Your task to perform on an android device: Open the phone app and click the voicemail tab. Image 0: 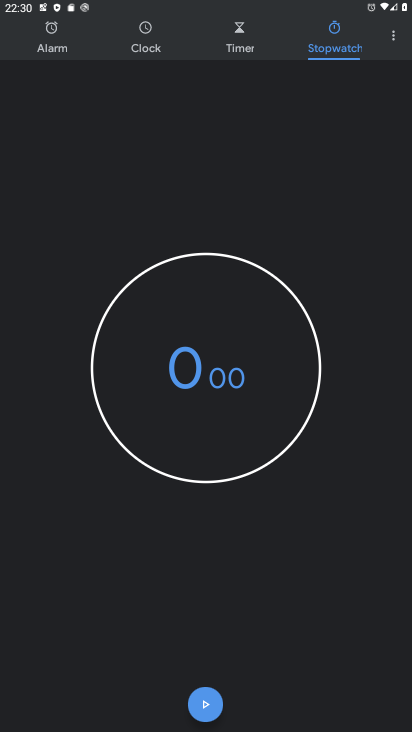
Step 0: drag from (289, 275) to (330, 142)
Your task to perform on an android device: Open the phone app and click the voicemail tab. Image 1: 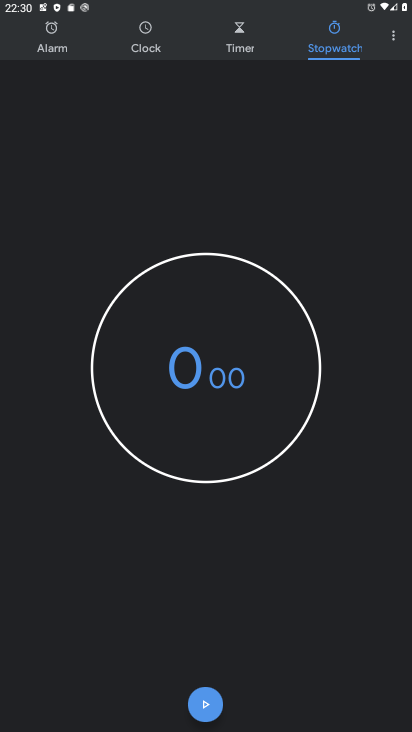
Step 1: press home button
Your task to perform on an android device: Open the phone app and click the voicemail tab. Image 2: 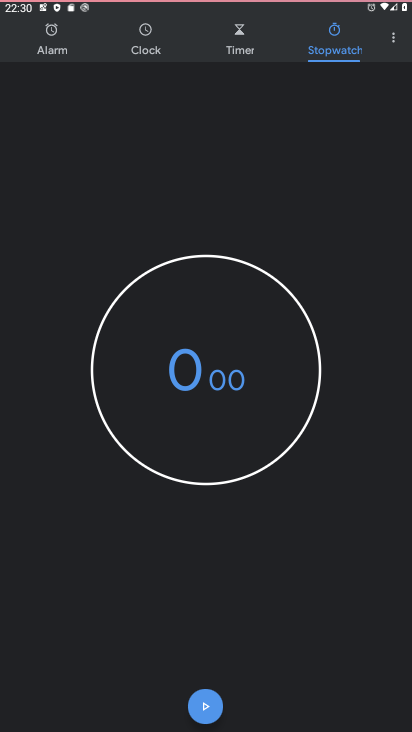
Step 2: drag from (255, 599) to (154, 6)
Your task to perform on an android device: Open the phone app and click the voicemail tab. Image 3: 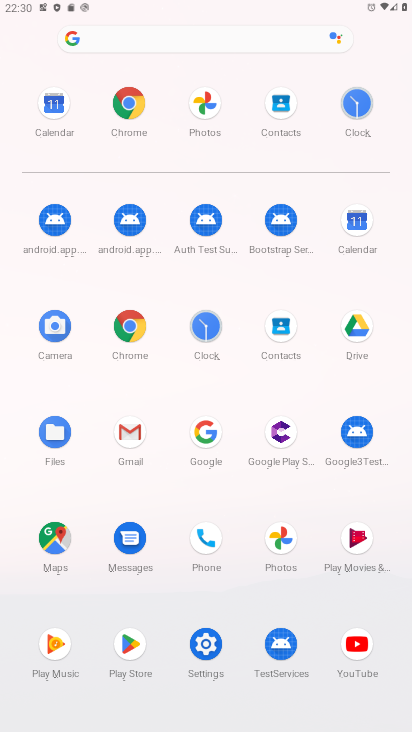
Step 3: drag from (164, 615) to (190, 32)
Your task to perform on an android device: Open the phone app and click the voicemail tab. Image 4: 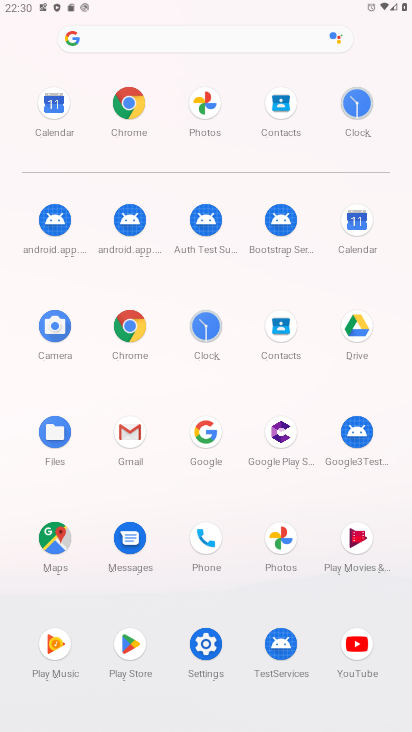
Step 4: click (204, 545)
Your task to perform on an android device: Open the phone app and click the voicemail tab. Image 5: 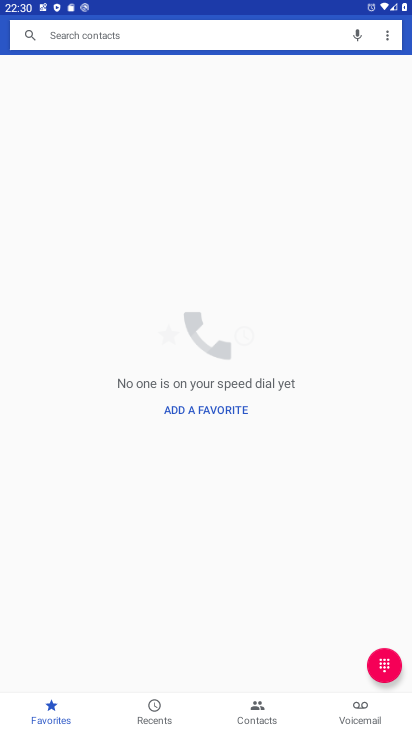
Step 5: click (363, 704)
Your task to perform on an android device: Open the phone app and click the voicemail tab. Image 6: 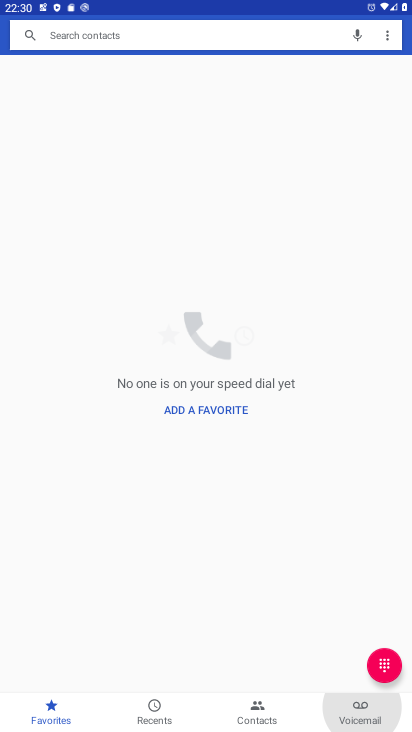
Step 6: click (363, 704)
Your task to perform on an android device: Open the phone app and click the voicemail tab. Image 7: 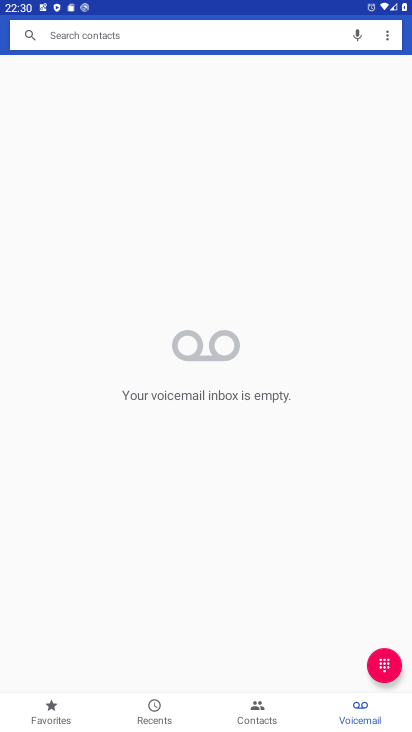
Step 7: task complete